Your task to perform on an android device: turn on location history Image 0: 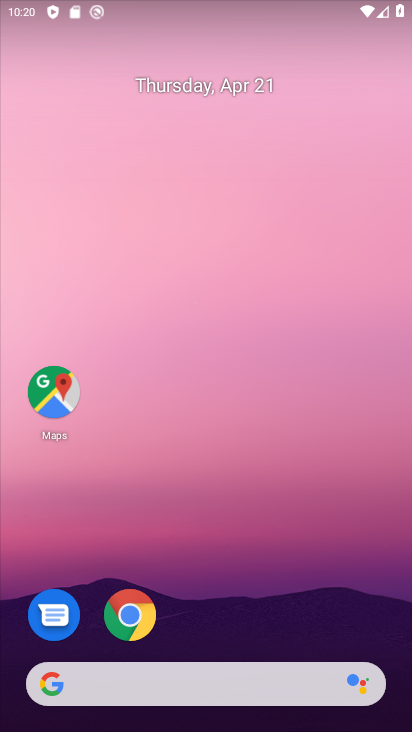
Step 0: drag from (230, 529) to (307, 3)
Your task to perform on an android device: turn on location history Image 1: 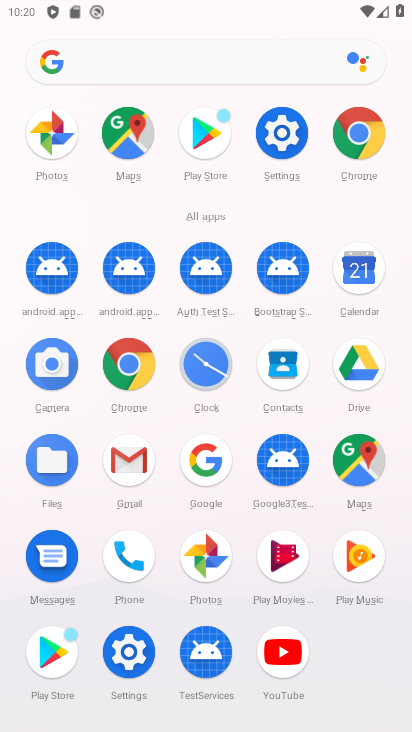
Step 1: click (140, 669)
Your task to perform on an android device: turn on location history Image 2: 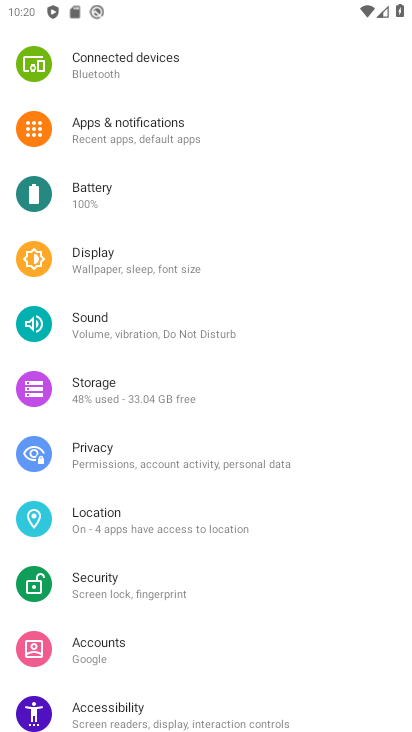
Step 2: click (139, 521)
Your task to perform on an android device: turn on location history Image 3: 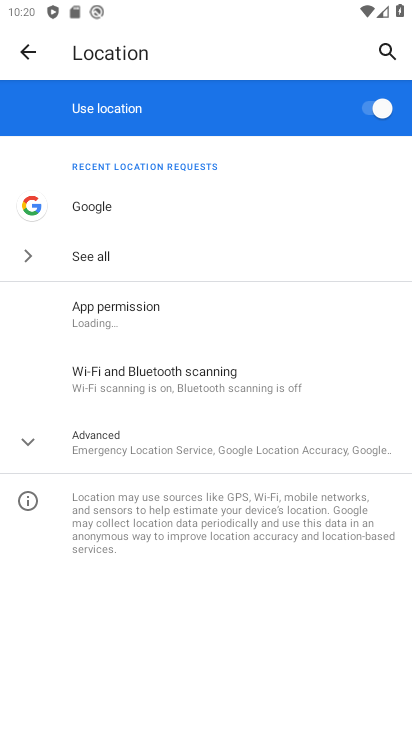
Step 3: click (174, 441)
Your task to perform on an android device: turn on location history Image 4: 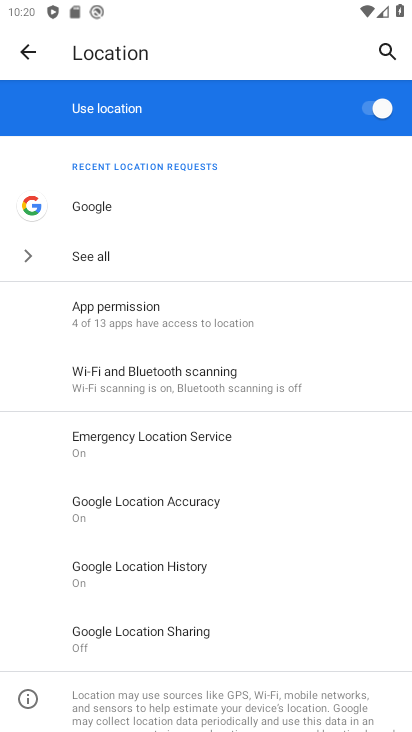
Step 4: click (212, 580)
Your task to perform on an android device: turn on location history Image 5: 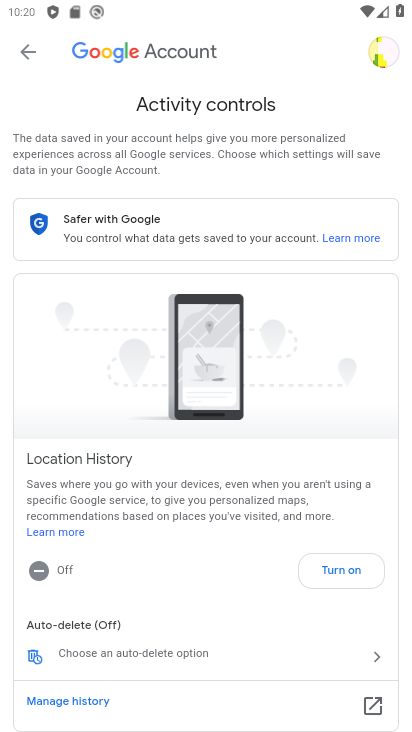
Step 5: click (334, 567)
Your task to perform on an android device: turn on location history Image 6: 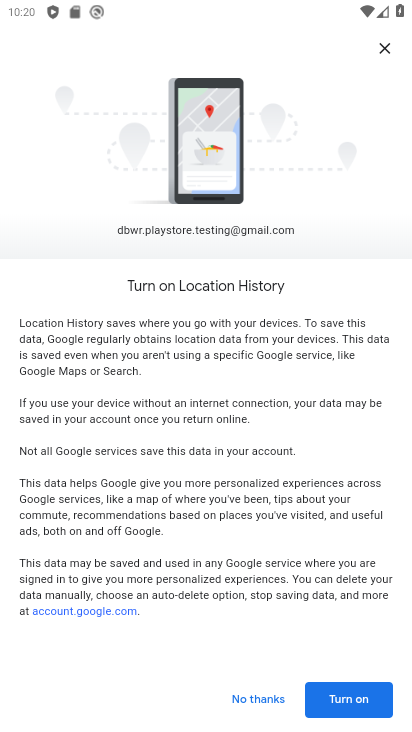
Step 6: click (376, 716)
Your task to perform on an android device: turn on location history Image 7: 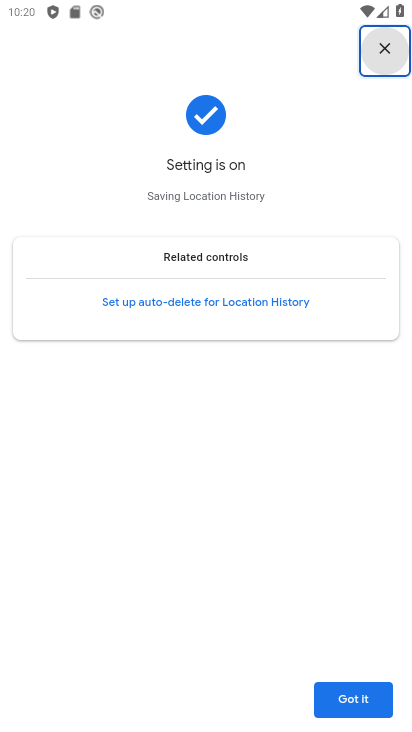
Step 7: click (356, 710)
Your task to perform on an android device: turn on location history Image 8: 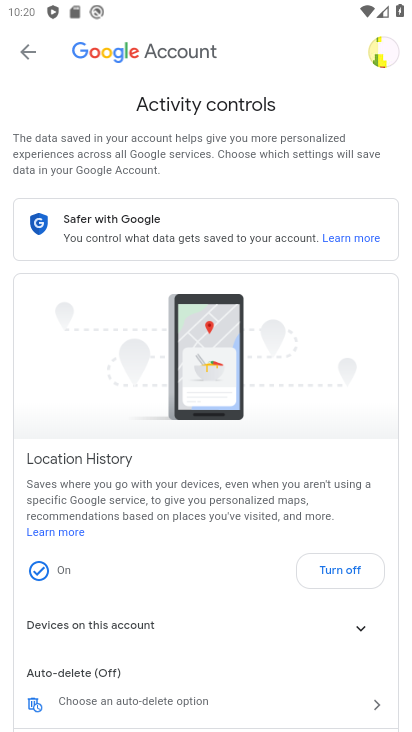
Step 8: task complete